Your task to perform on an android device: add a contact in the contacts app Image 0: 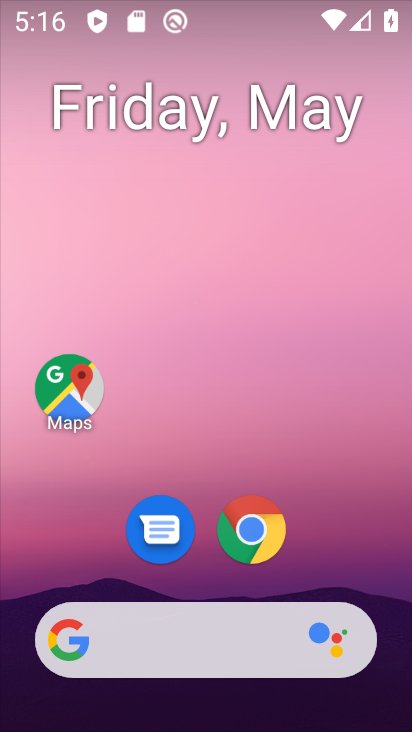
Step 0: drag from (200, 555) to (229, 51)
Your task to perform on an android device: add a contact in the contacts app Image 1: 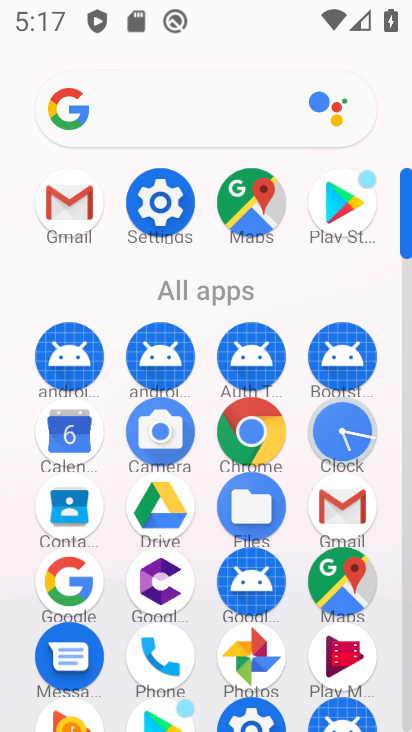
Step 1: click (84, 506)
Your task to perform on an android device: add a contact in the contacts app Image 2: 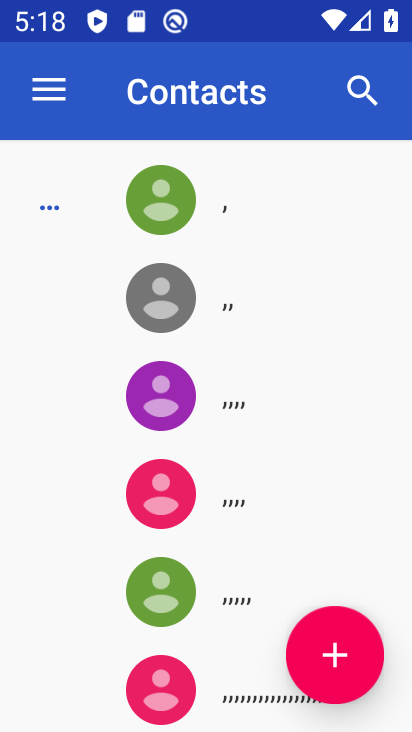
Step 2: click (310, 688)
Your task to perform on an android device: add a contact in the contacts app Image 3: 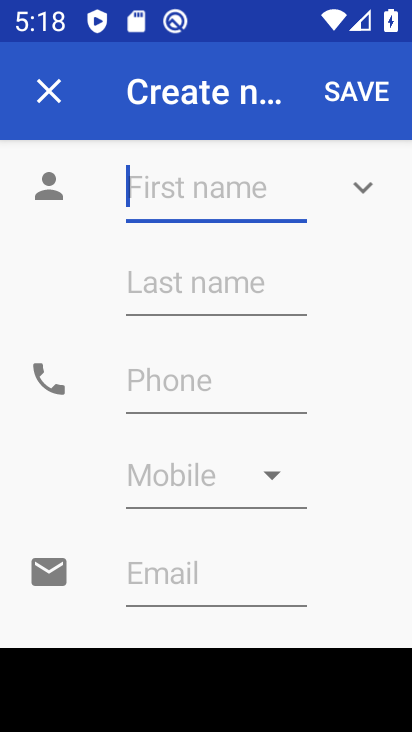
Step 3: type ",,,,,,"
Your task to perform on an android device: add a contact in the contacts app Image 4: 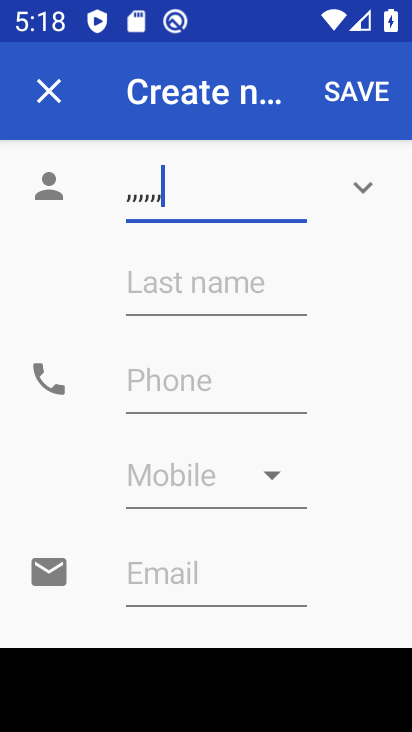
Step 4: click (142, 365)
Your task to perform on an android device: add a contact in the contacts app Image 5: 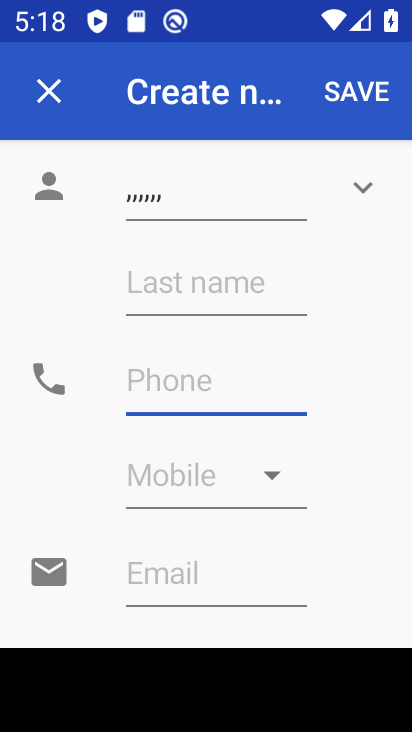
Step 5: type "9876545678"
Your task to perform on an android device: add a contact in the contacts app Image 6: 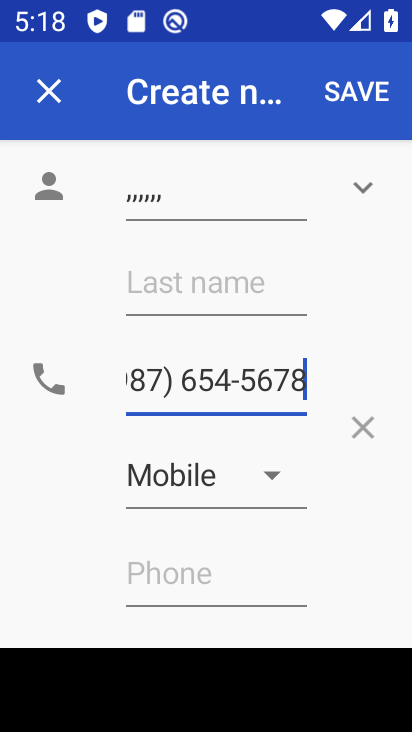
Step 6: click (348, 98)
Your task to perform on an android device: add a contact in the contacts app Image 7: 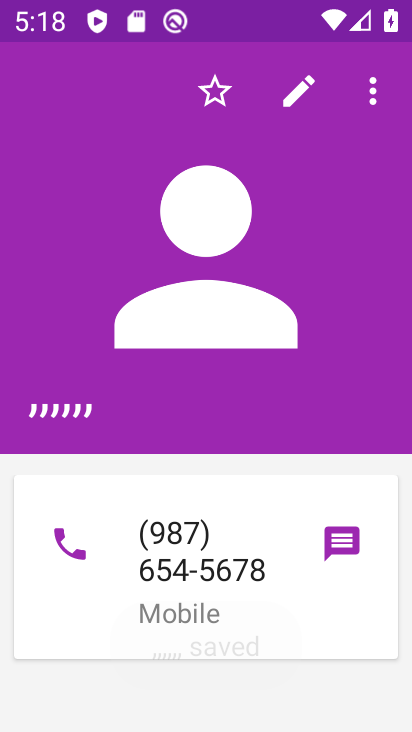
Step 7: task complete